Your task to perform on an android device: Open accessibility settings Image 0: 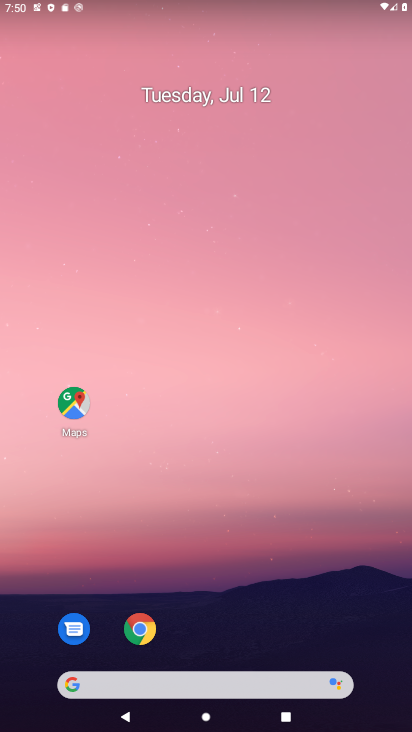
Step 0: drag from (274, 700) to (234, 241)
Your task to perform on an android device: Open accessibility settings Image 1: 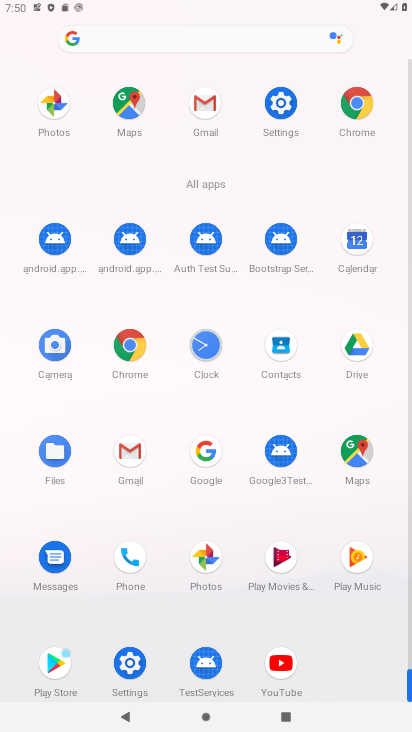
Step 1: click (290, 99)
Your task to perform on an android device: Open accessibility settings Image 2: 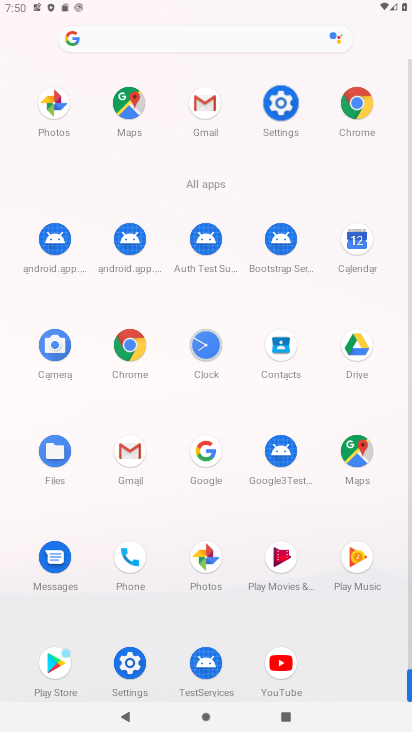
Step 2: click (290, 99)
Your task to perform on an android device: Open accessibility settings Image 3: 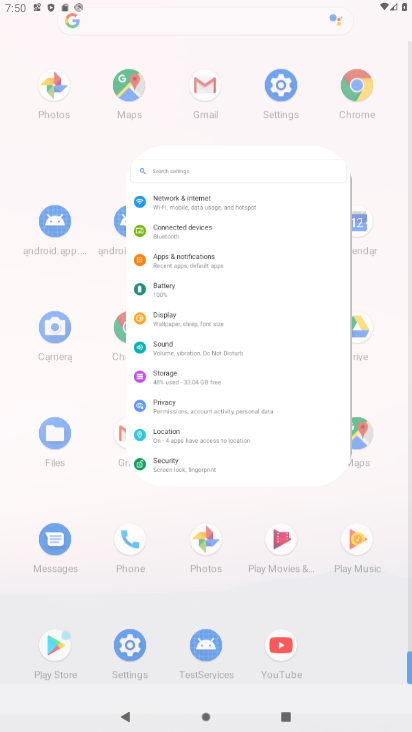
Step 3: click (291, 100)
Your task to perform on an android device: Open accessibility settings Image 4: 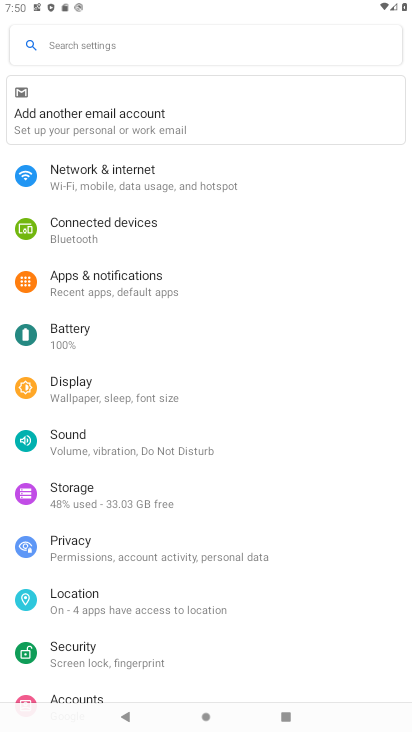
Step 4: drag from (129, 508) to (145, 121)
Your task to perform on an android device: Open accessibility settings Image 5: 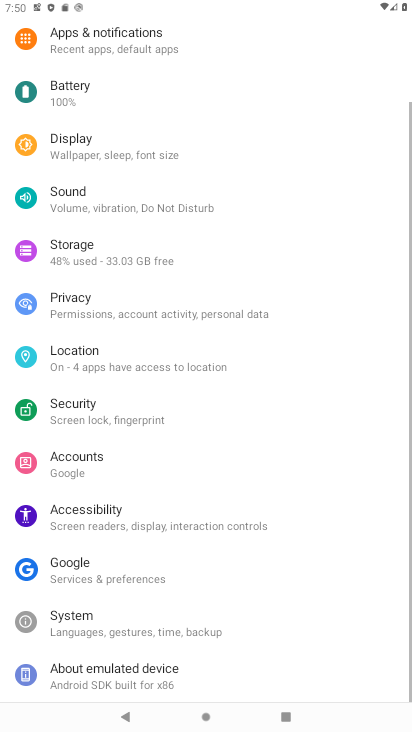
Step 5: drag from (102, 407) to (83, 207)
Your task to perform on an android device: Open accessibility settings Image 6: 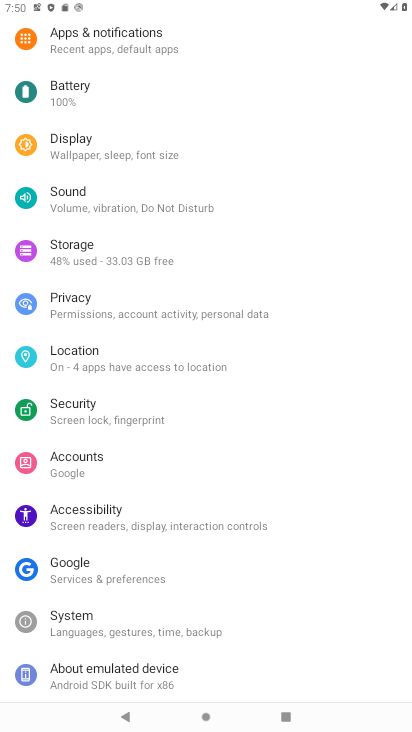
Step 6: click (111, 514)
Your task to perform on an android device: Open accessibility settings Image 7: 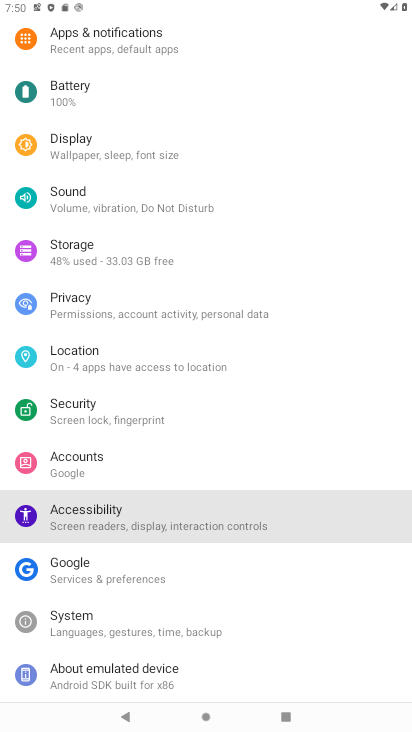
Step 7: click (111, 514)
Your task to perform on an android device: Open accessibility settings Image 8: 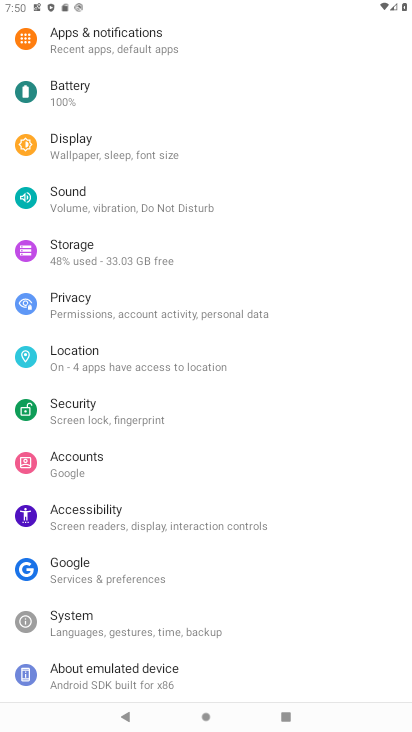
Step 8: click (111, 514)
Your task to perform on an android device: Open accessibility settings Image 9: 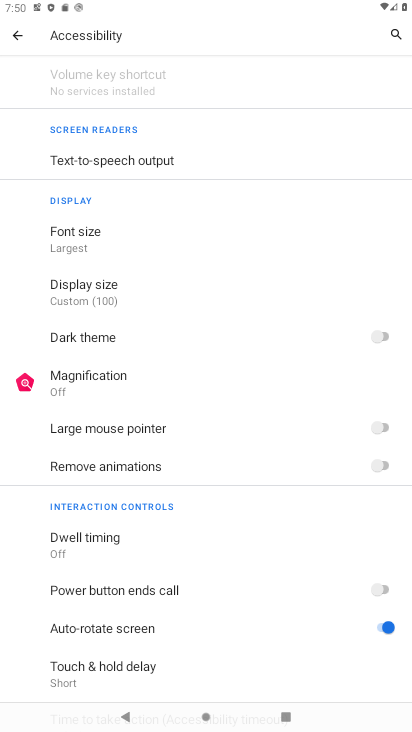
Step 9: task complete